Your task to perform on an android device: What's on my calendar today? Image 0: 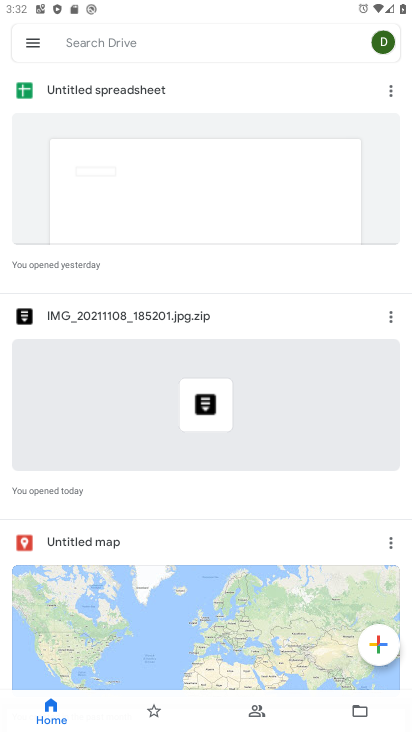
Step 0: press home button
Your task to perform on an android device: What's on my calendar today? Image 1: 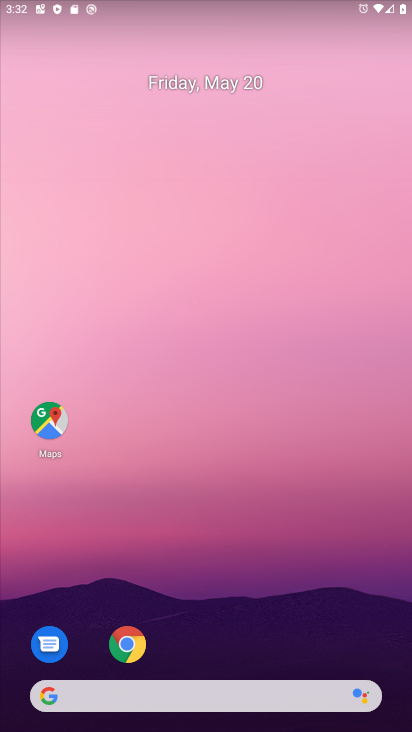
Step 1: drag from (270, 597) to (167, 61)
Your task to perform on an android device: What's on my calendar today? Image 2: 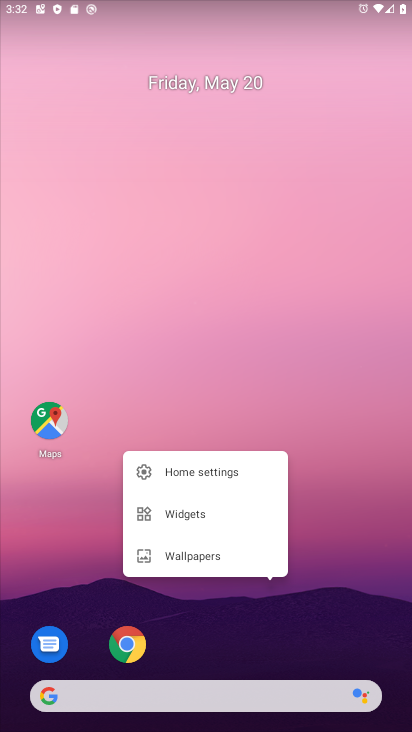
Step 2: click (211, 364)
Your task to perform on an android device: What's on my calendar today? Image 3: 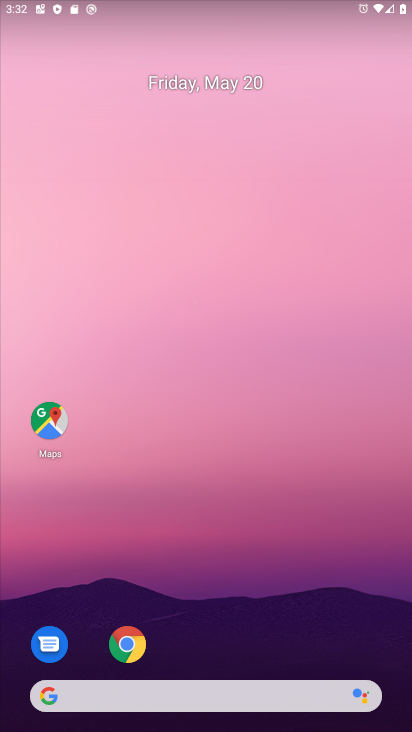
Step 3: drag from (251, 609) to (244, 350)
Your task to perform on an android device: What's on my calendar today? Image 4: 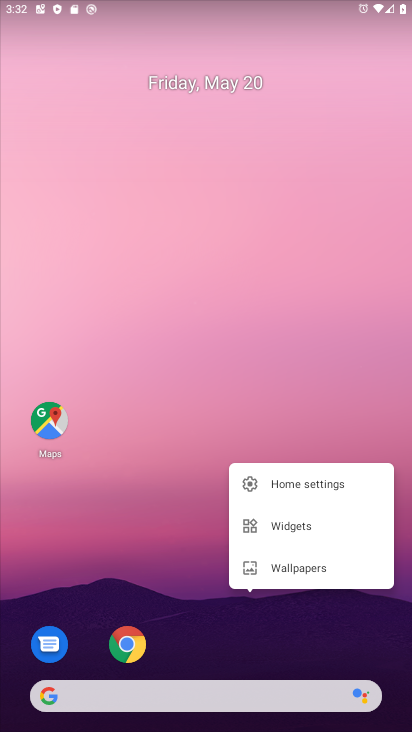
Step 4: click (185, 427)
Your task to perform on an android device: What's on my calendar today? Image 5: 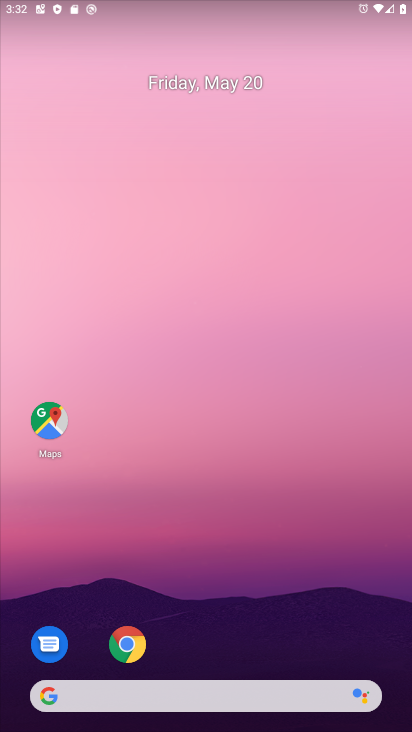
Step 5: drag from (198, 627) to (144, 151)
Your task to perform on an android device: What's on my calendar today? Image 6: 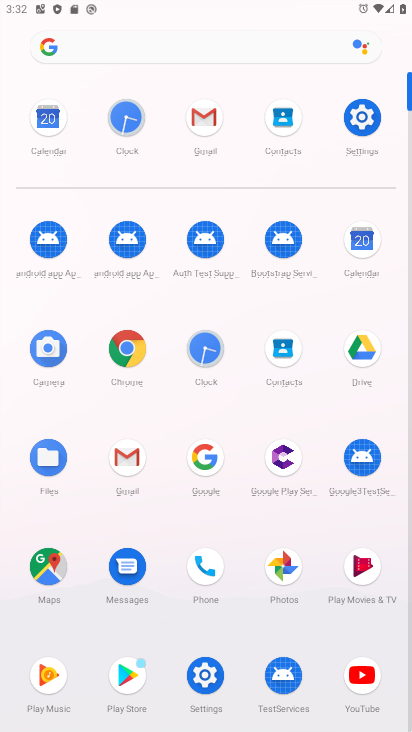
Step 6: click (51, 143)
Your task to perform on an android device: What's on my calendar today? Image 7: 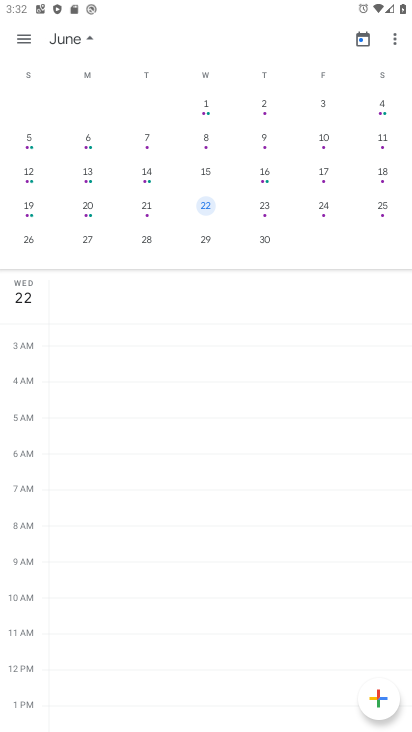
Step 7: task complete